Your task to perform on an android device: Search for seafood restaurants on Google Maps Image 0: 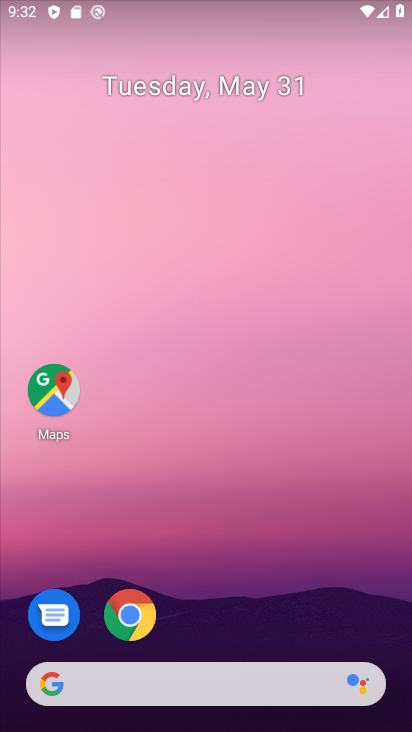
Step 0: click (47, 393)
Your task to perform on an android device: Search for seafood restaurants on Google Maps Image 1: 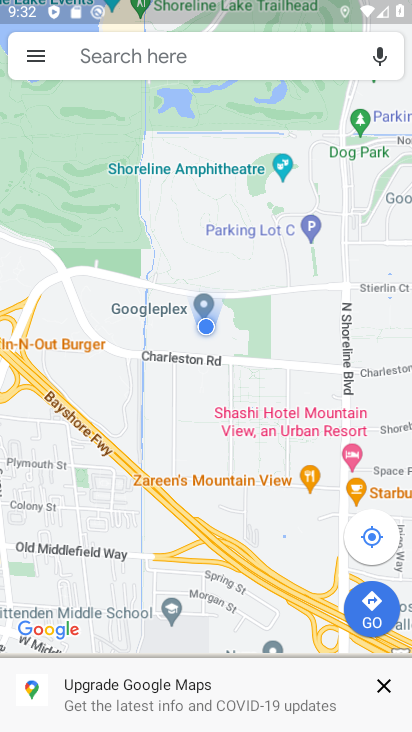
Step 1: click (127, 64)
Your task to perform on an android device: Search for seafood restaurants on Google Maps Image 2: 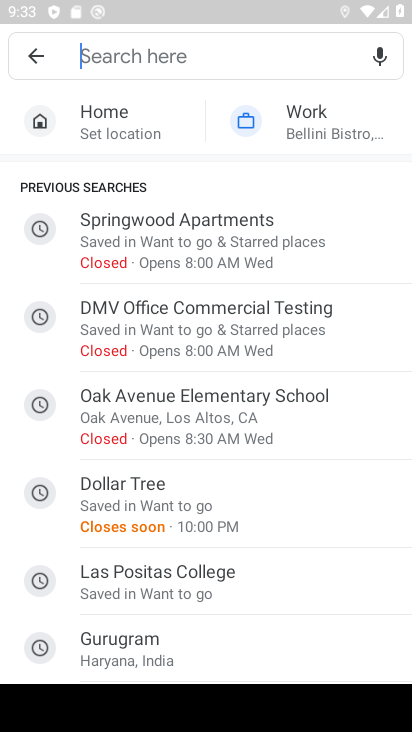
Step 2: type "seafood restaurants"
Your task to perform on an android device: Search for seafood restaurants on Google Maps Image 3: 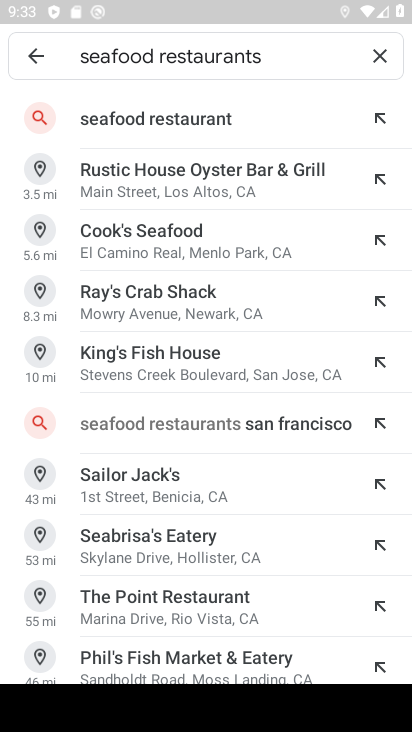
Step 3: click (134, 109)
Your task to perform on an android device: Search for seafood restaurants on Google Maps Image 4: 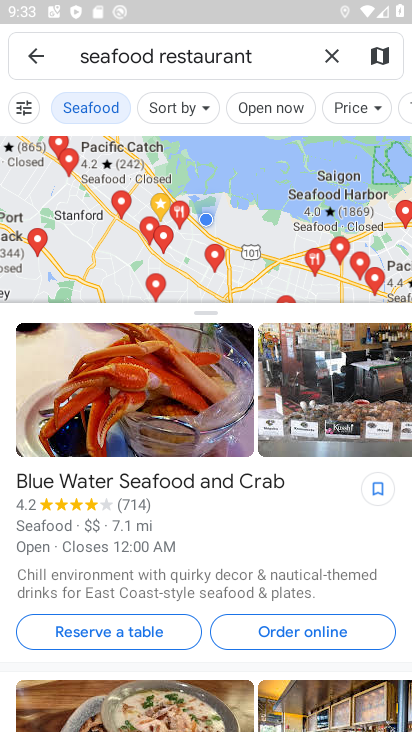
Step 4: task complete